Your task to perform on an android device: Open Youtube and go to "Your channel" Image 0: 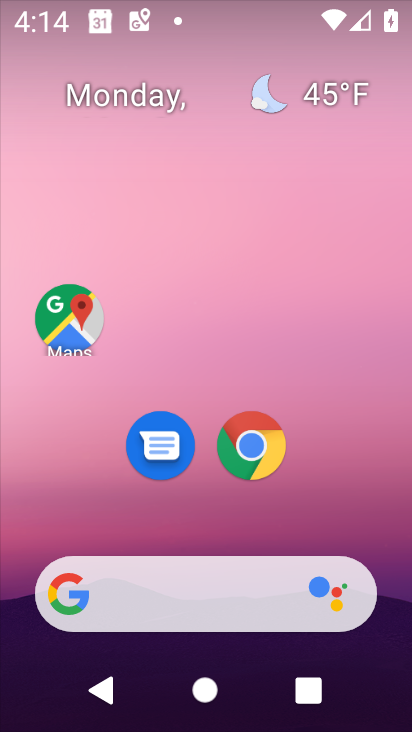
Step 0: drag from (336, 541) to (383, 46)
Your task to perform on an android device: Open Youtube and go to "Your channel" Image 1: 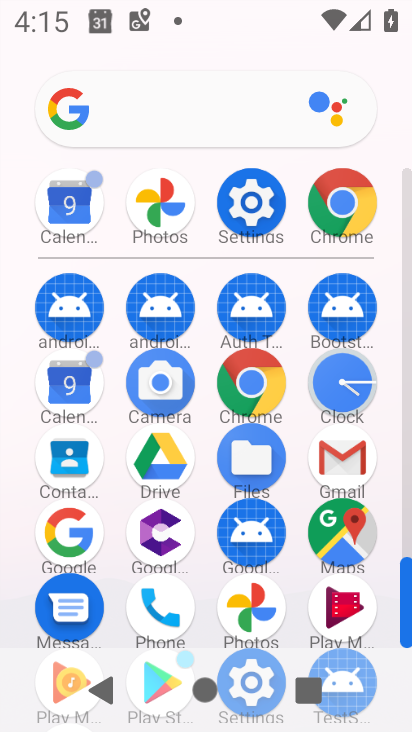
Step 1: drag from (200, 580) to (210, 223)
Your task to perform on an android device: Open Youtube and go to "Your channel" Image 2: 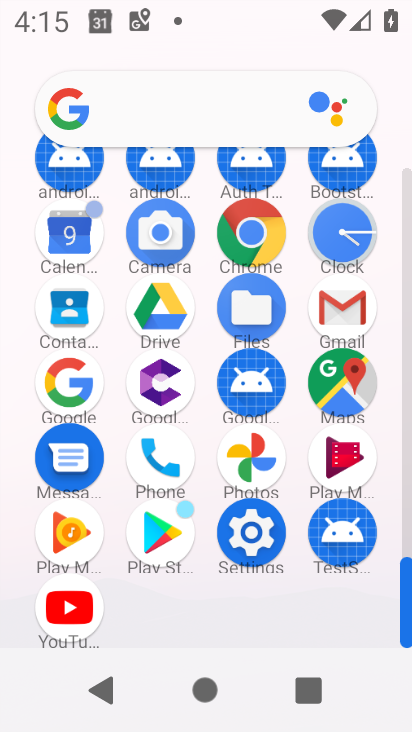
Step 2: click (71, 600)
Your task to perform on an android device: Open Youtube and go to "Your channel" Image 3: 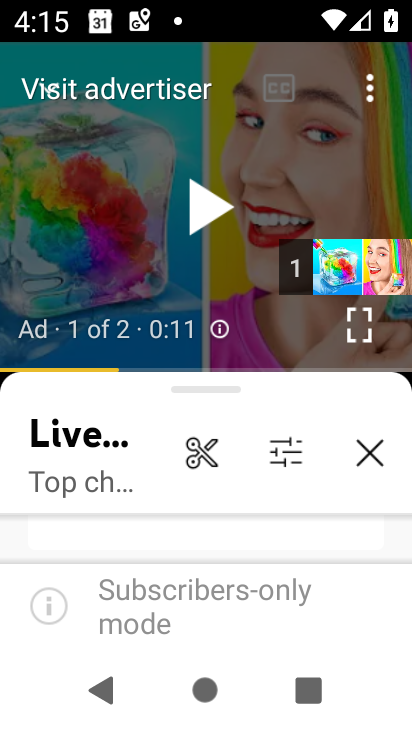
Step 3: press back button
Your task to perform on an android device: Open Youtube and go to "Your channel" Image 4: 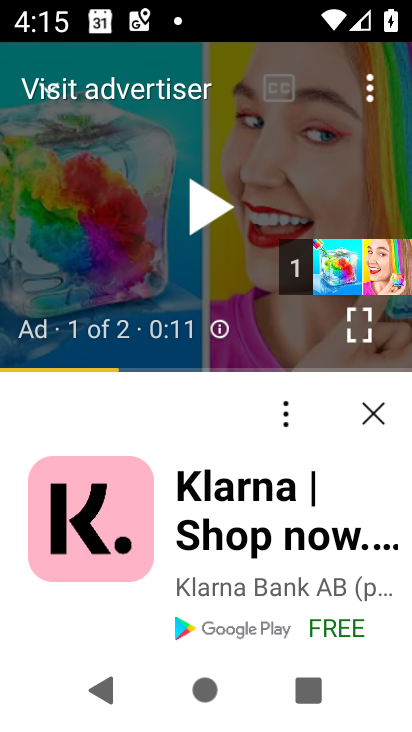
Step 4: press back button
Your task to perform on an android device: Open Youtube and go to "Your channel" Image 5: 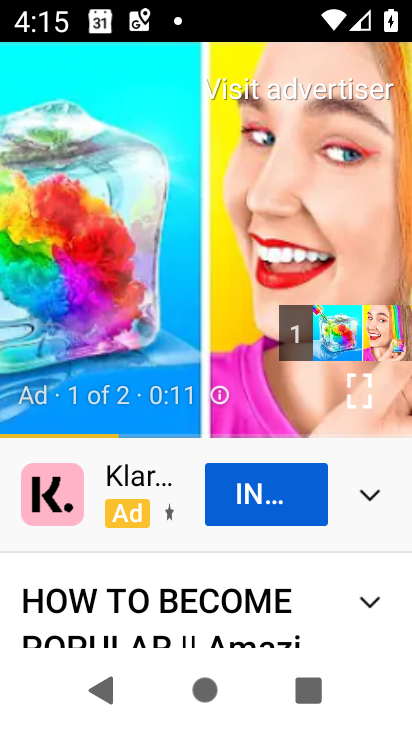
Step 5: press back button
Your task to perform on an android device: Open Youtube and go to "Your channel" Image 6: 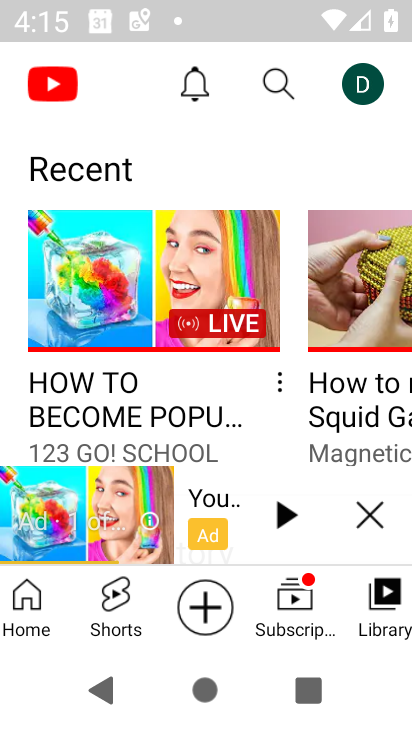
Step 6: click (357, 79)
Your task to perform on an android device: Open Youtube and go to "Your channel" Image 7: 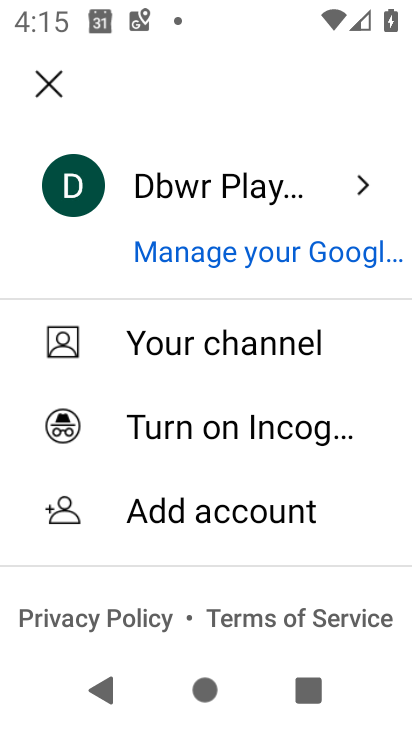
Step 7: click (139, 332)
Your task to perform on an android device: Open Youtube and go to "Your channel" Image 8: 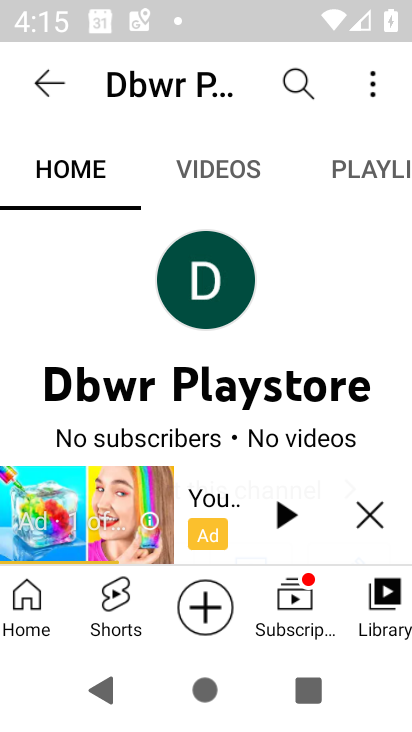
Step 8: task complete